Your task to perform on an android device: move an email to a new category in the gmail app Image 0: 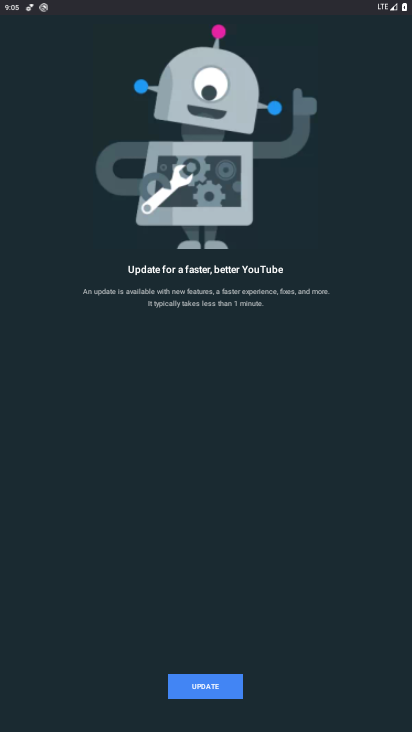
Step 0: press home button
Your task to perform on an android device: move an email to a new category in the gmail app Image 1: 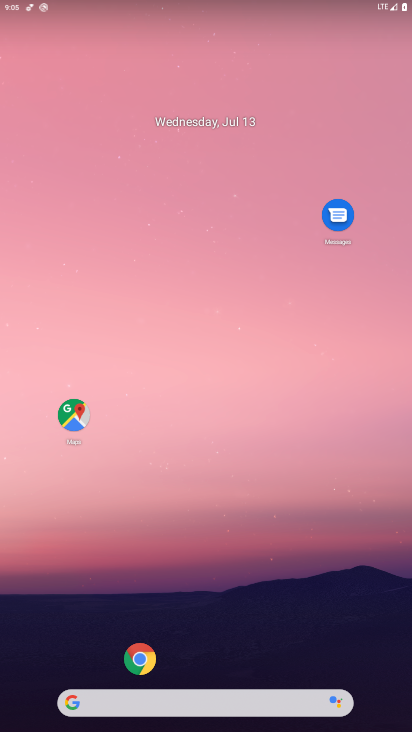
Step 1: drag from (44, 671) to (230, 134)
Your task to perform on an android device: move an email to a new category in the gmail app Image 2: 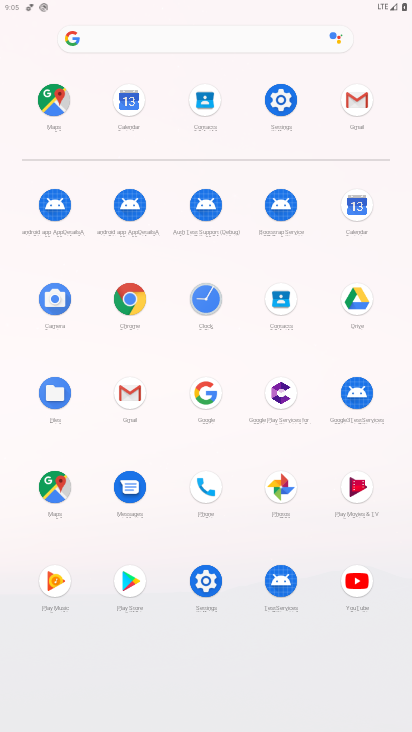
Step 2: click (139, 406)
Your task to perform on an android device: move an email to a new category in the gmail app Image 3: 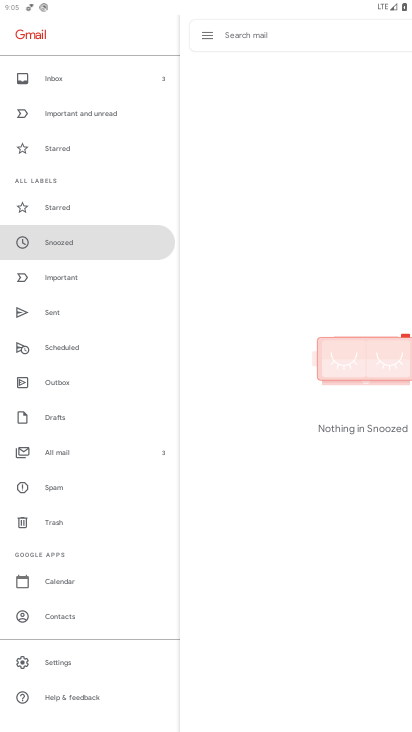
Step 3: click (107, 78)
Your task to perform on an android device: move an email to a new category in the gmail app Image 4: 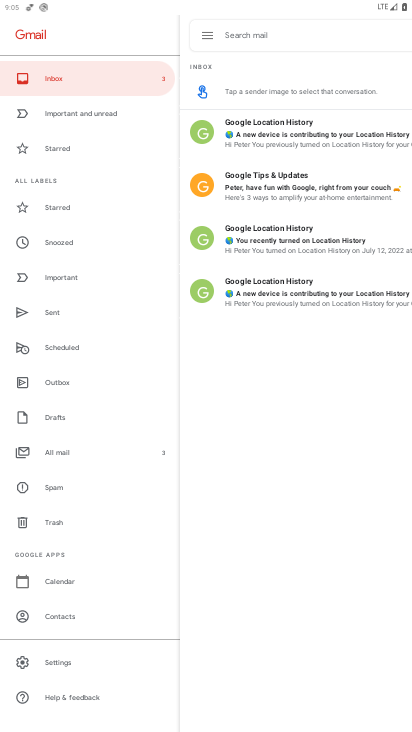
Step 4: task complete